Your task to perform on an android device: see tabs open on other devices in the chrome app Image 0: 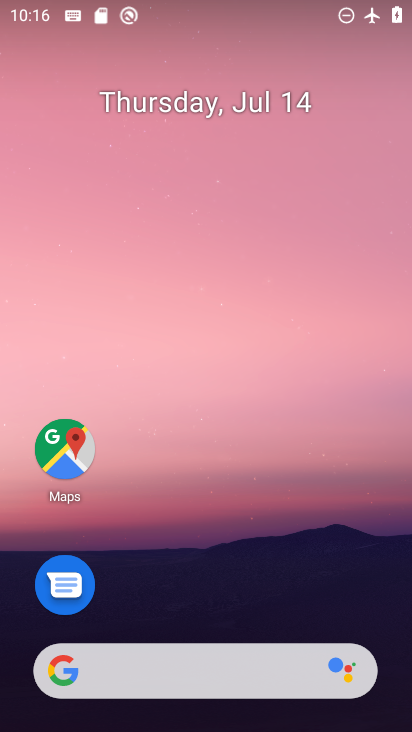
Step 0: drag from (185, 624) to (89, 81)
Your task to perform on an android device: see tabs open on other devices in the chrome app Image 1: 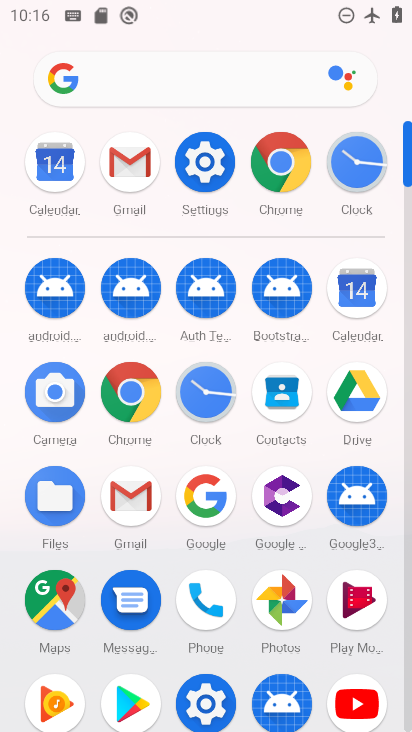
Step 1: click (142, 391)
Your task to perform on an android device: see tabs open on other devices in the chrome app Image 2: 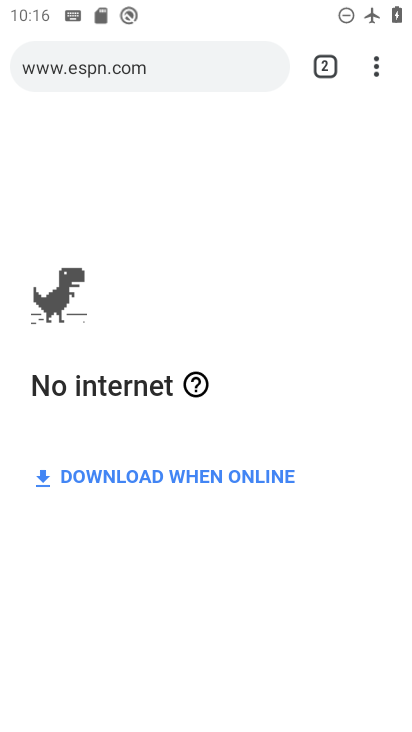
Step 2: click (330, 71)
Your task to perform on an android device: see tabs open on other devices in the chrome app Image 3: 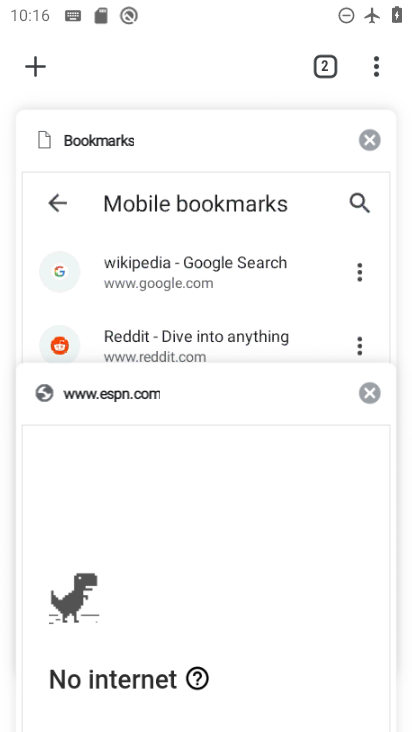
Step 3: click (329, 59)
Your task to perform on an android device: see tabs open on other devices in the chrome app Image 4: 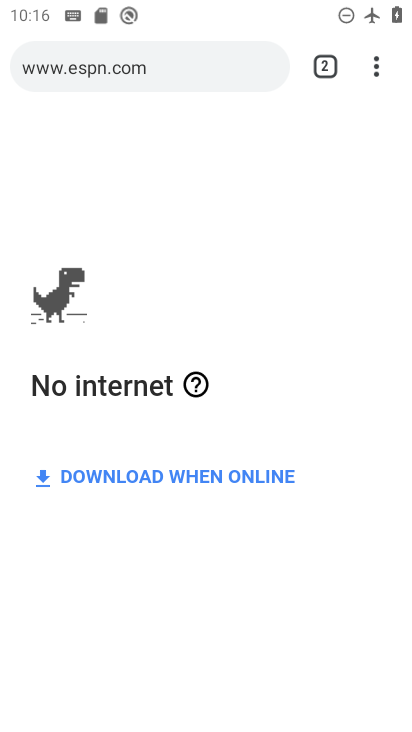
Step 4: click (329, 59)
Your task to perform on an android device: see tabs open on other devices in the chrome app Image 5: 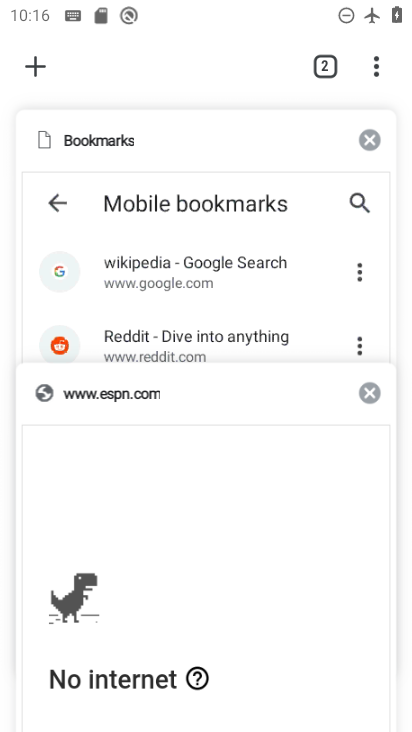
Step 5: task complete